Your task to perform on an android device: toggle data saver in the chrome app Image 0: 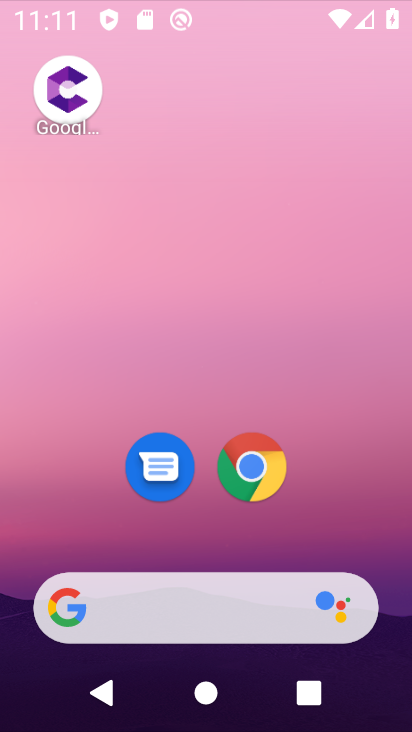
Step 0: click (320, 67)
Your task to perform on an android device: toggle data saver in the chrome app Image 1: 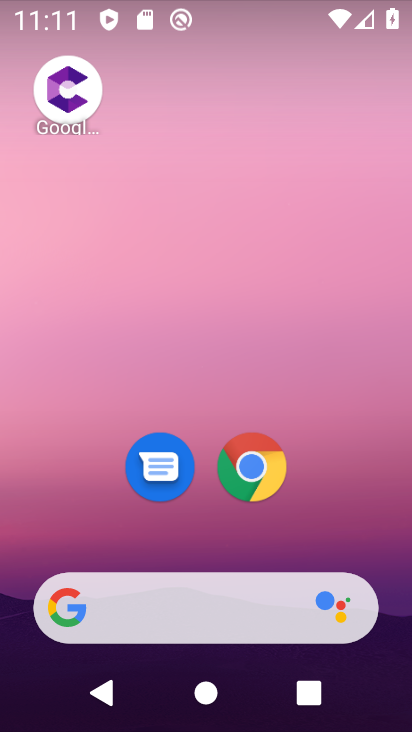
Step 1: drag from (370, 525) to (410, 1)
Your task to perform on an android device: toggle data saver in the chrome app Image 2: 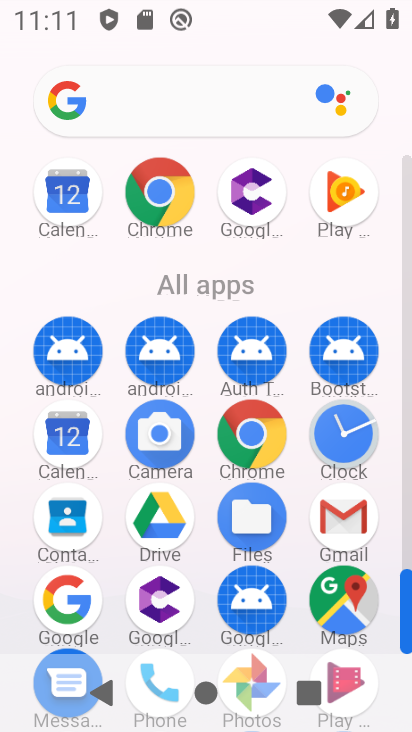
Step 2: click (235, 436)
Your task to perform on an android device: toggle data saver in the chrome app Image 3: 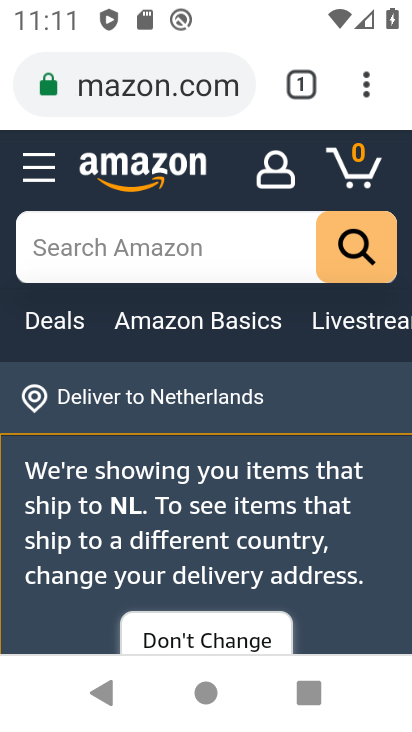
Step 3: drag from (373, 89) to (140, 522)
Your task to perform on an android device: toggle data saver in the chrome app Image 4: 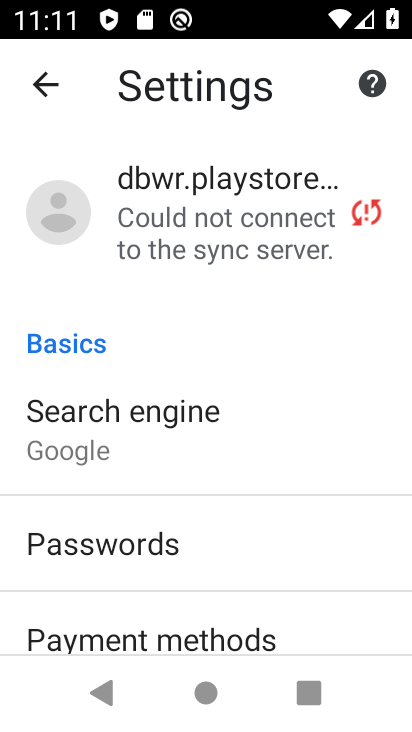
Step 4: drag from (232, 533) to (271, 174)
Your task to perform on an android device: toggle data saver in the chrome app Image 5: 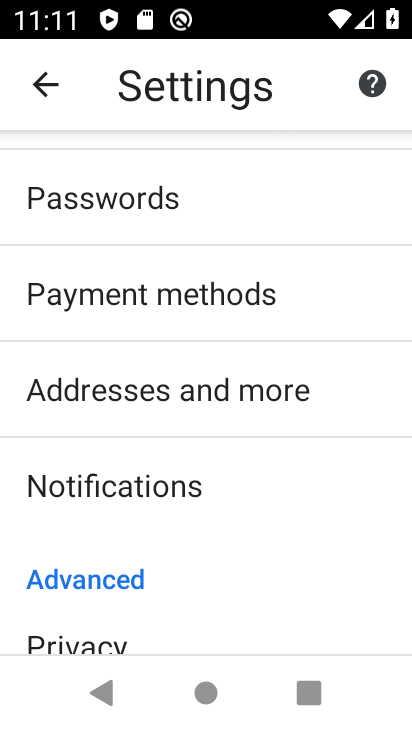
Step 5: drag from (186, 530) to (207, 254)
Your task to perform on an android device: toggle data saver in the chrome app Image 6: 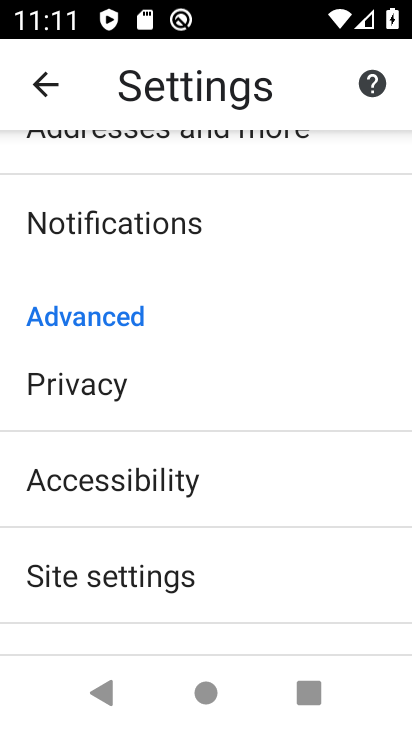
Step 6: drag from (263, 614) to (330, 219)
Your task to perform on an android device: toggle data saver in the chrome app Image 7: 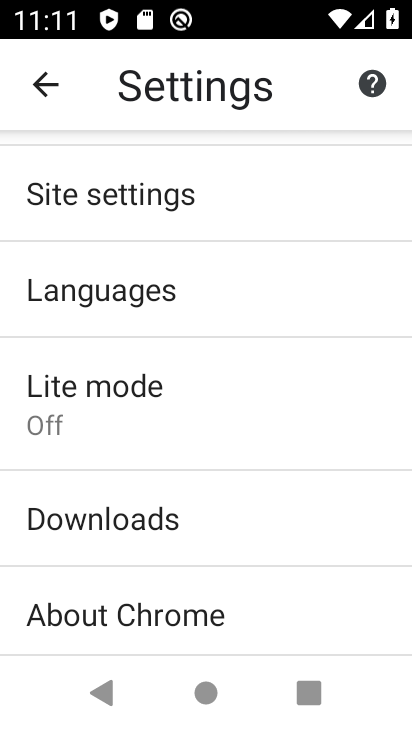
Step 7: click (114, 374)
Your task to perform on an android device: toggle data saver in the chrome app Image 8: 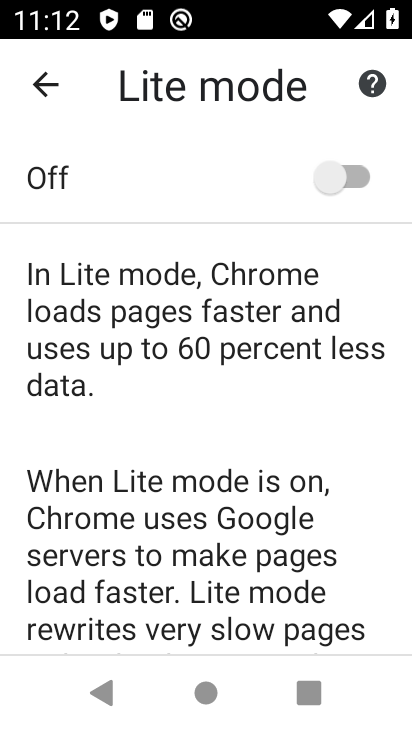
Step 8: click (334, 191)
Your task to perform on an android device: toggle data saver in the chrome app Image 9: 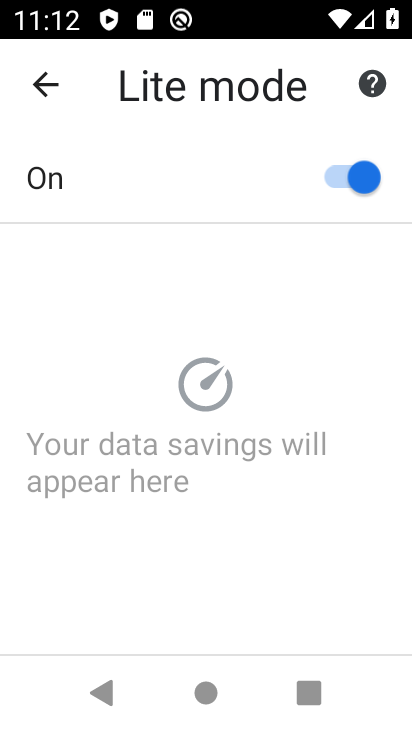
Step 9: task complete